Your task to perform on an android device: add a label to a message in the gmail app Image 0: 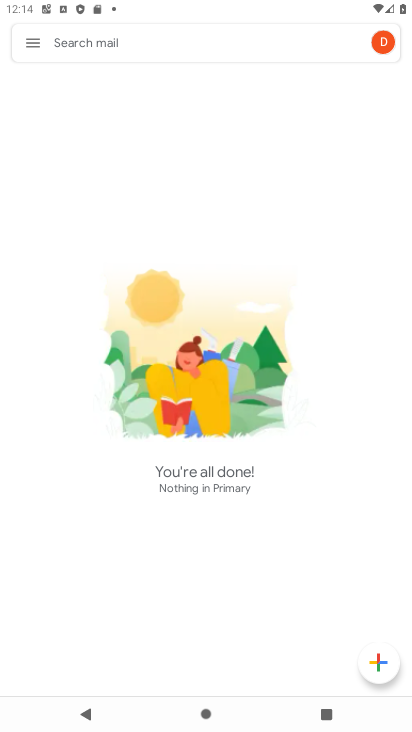
Step 0: press home button
Your task to perform on an android device: add a label to a message in the gmail app Image 1: 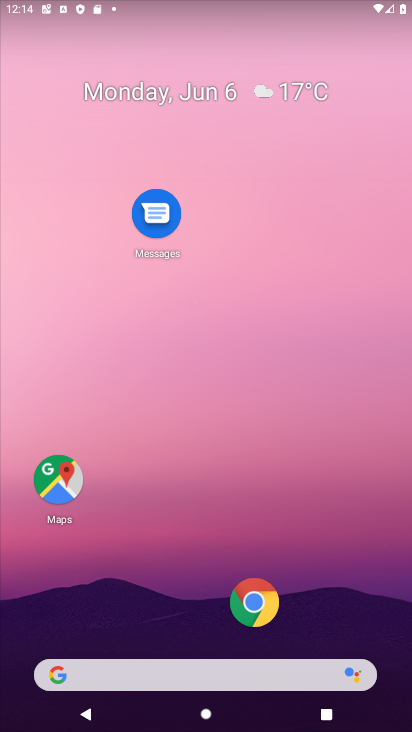
Step 1: drag from (374, 611) to (347, 262)
Your task to perform on an android device: add a label to a message in the gmail app Image 2: 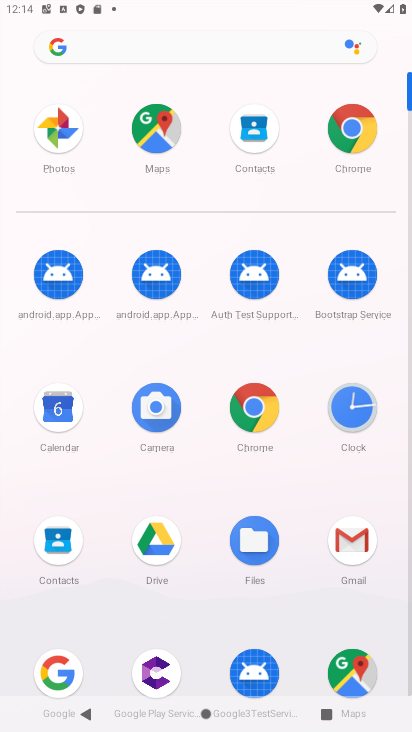
Step 2: click (356, 569)
Your task to perform on an android device: add a label to a message in the gmail app Image 3: 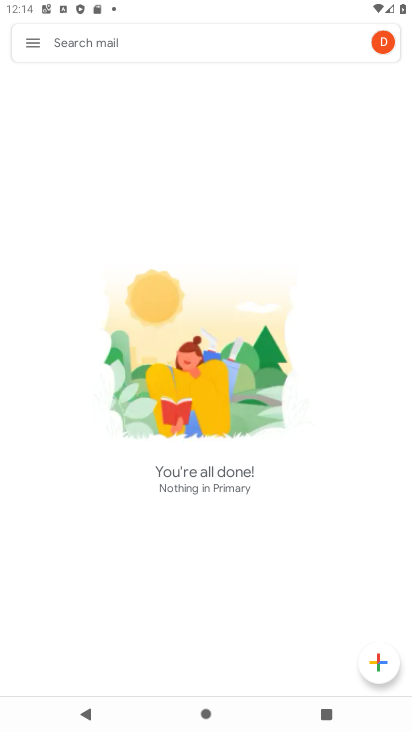
Step 3: task complete